Your task to perform on an android device: Open display settings Image 0: 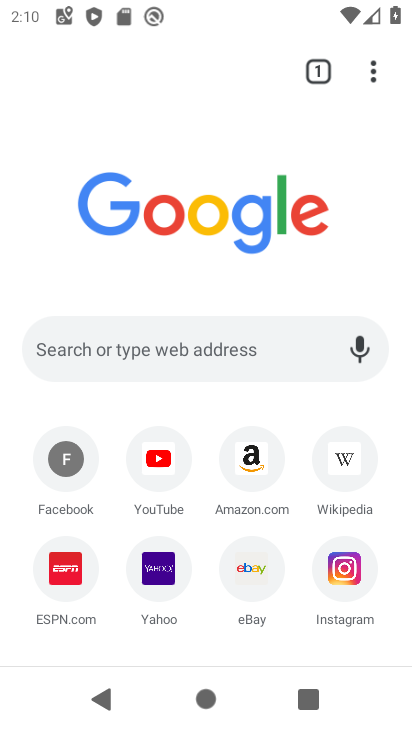
Step 0: drag from (191, 543) to (228, 186)
Your task to perform on an android device: Open display settings Image 1: 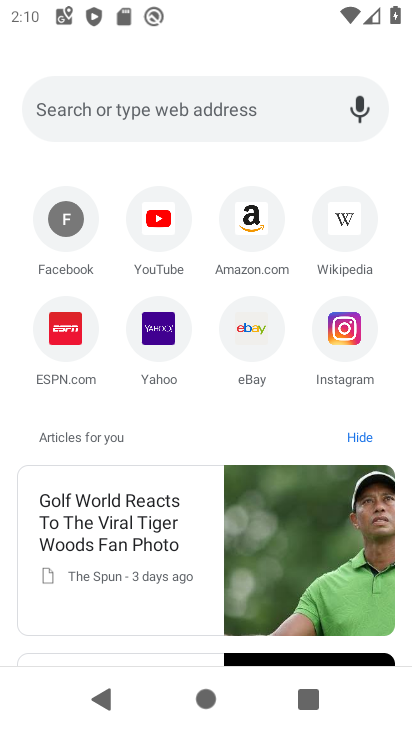
Step 1: press home button
Your task to perform on an android device: Open display settings Image 2: 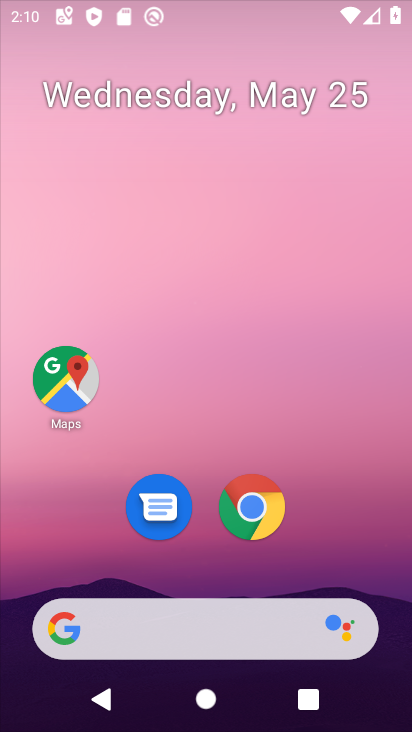
Step 2: drag from (166, 632) to (232, 261)
Your task to perform on an android device: Open display settings Image 3: 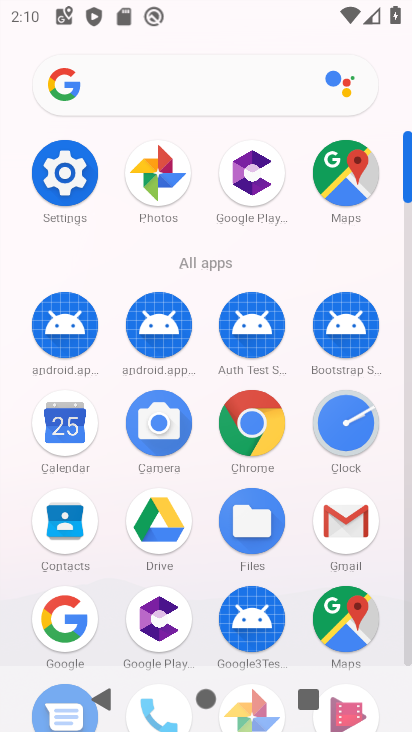
Step 3: click (85, 182)
Your task to perform on an android device: Open display settings Image 4: 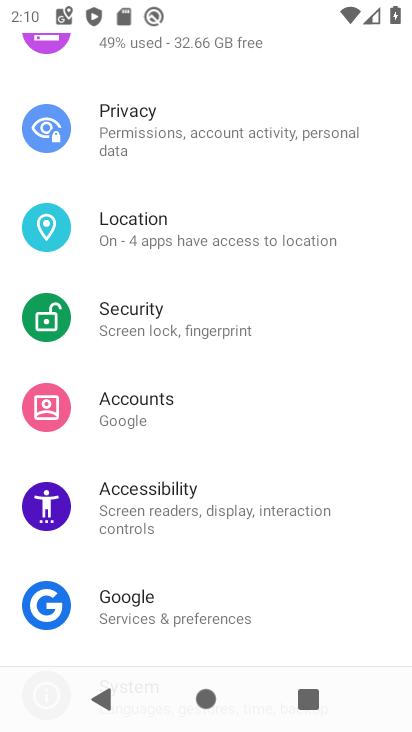
Step 4: drag from (194, 230) to (161, 506)
Your task to perform on an android device: Open display settings Image 5: 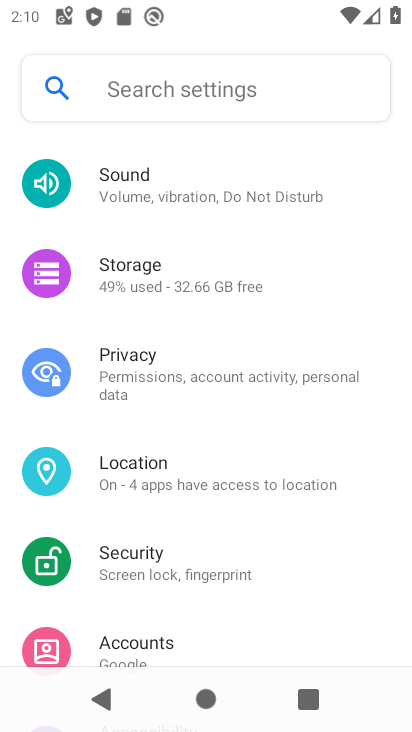
Step 5: drag from (225, 252) to (209, 611)
Your task to perform on an android device: Open display settings Image 6: 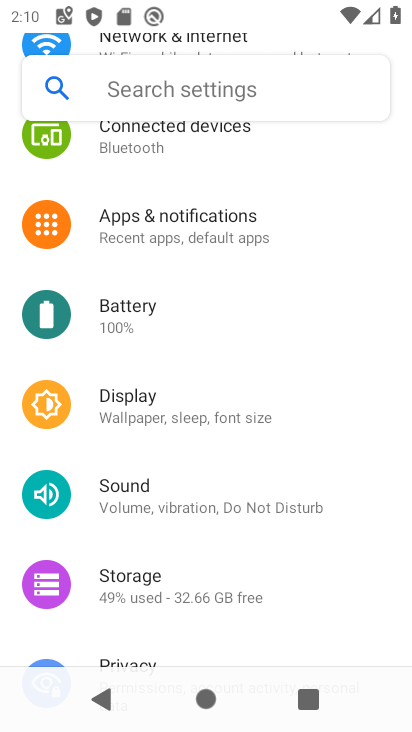
Step 6: click (196, 427)
Your task to perform on an android device: Open display settings Image 7: 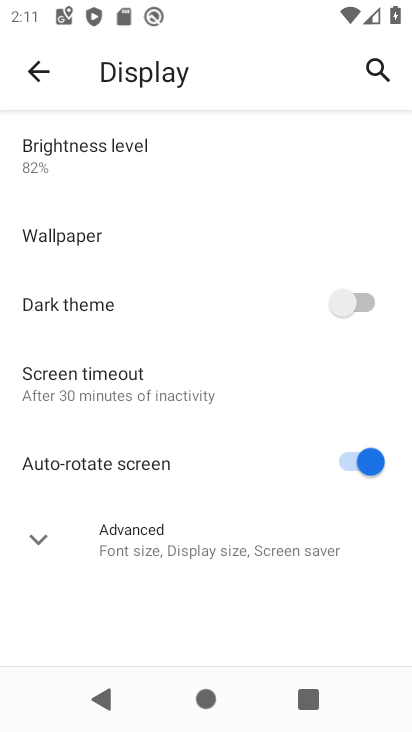
Step 7: task complete